Your task to perform on an android device: Do I have any events today? Image 0: 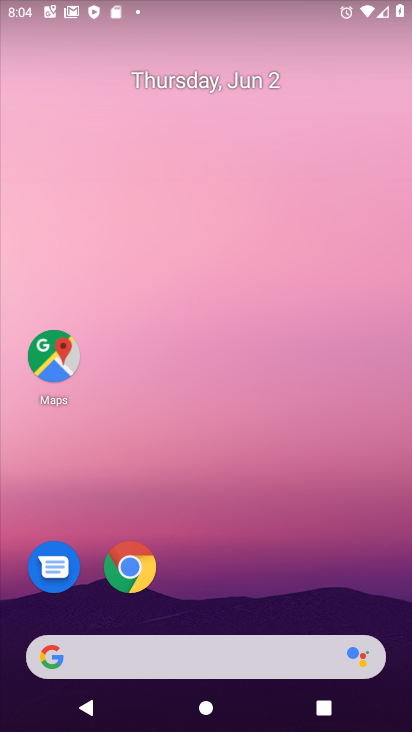
Step 0: drag from (291, 596) to (234, 2)
Your task to perform on an android device: Do I have any events today? Image 1: 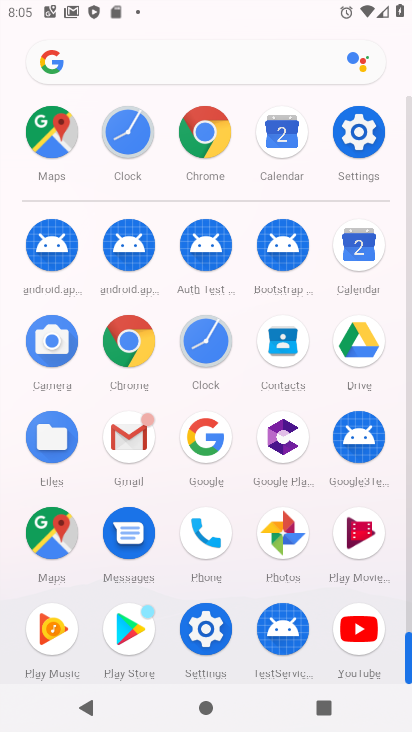
Step 1: click (284, 136)
Your task to perform on an android device: Do I have any events today? Image 2: 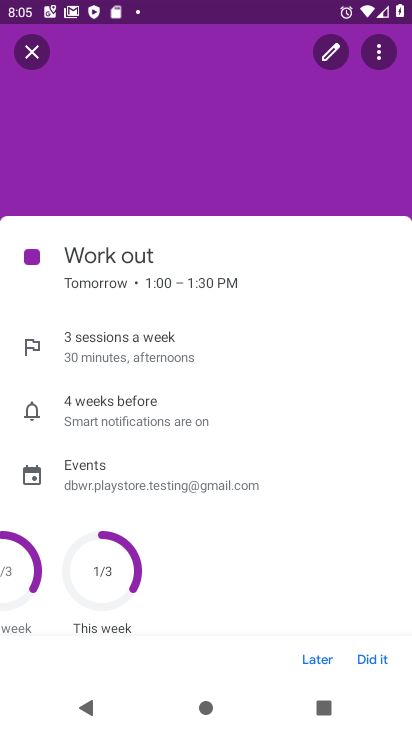
Step 2: click (30, 55)
Your task to perform on an android device: Do I have any events today? Image 3: 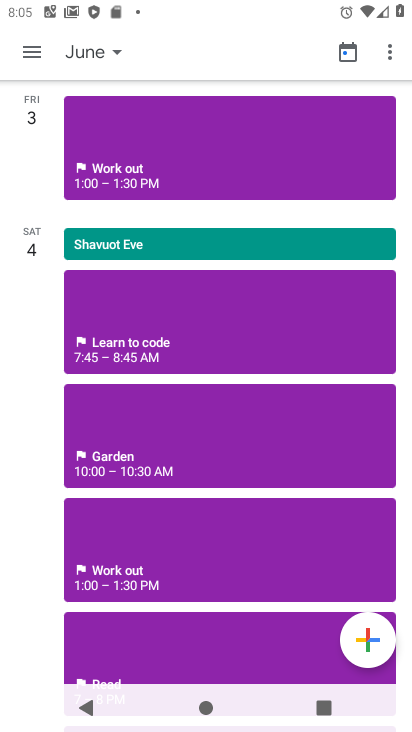
Step 3: click (348, 55)
Your task to perform on an android device: Do I have any events today? Image 4: 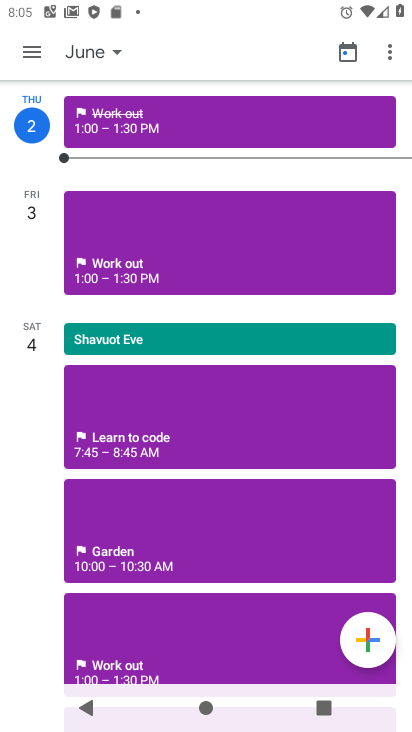
Step 4: click (286, 121)
Your task to perform on an android device: Do I have any events today? Image 5: 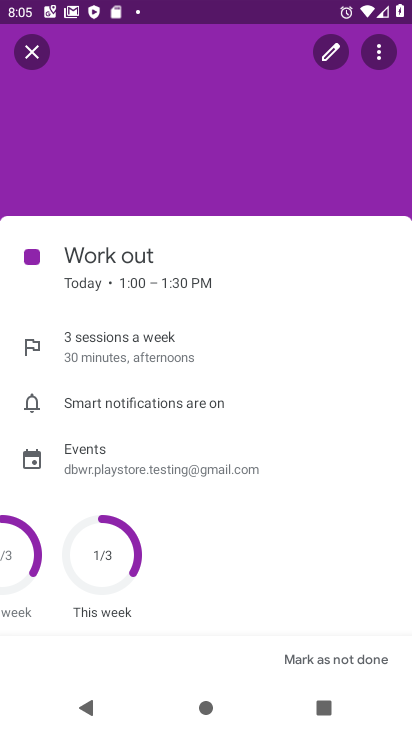
Step 5: task complete